Your task to perform on an android device: Is it going to rain today? Image 0: 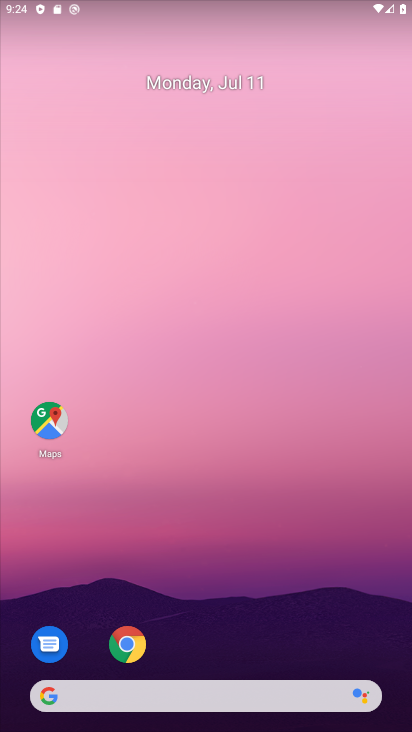
Step 0: press home button
Your task to perform on an android device: Is it going to rain today? Image 1: 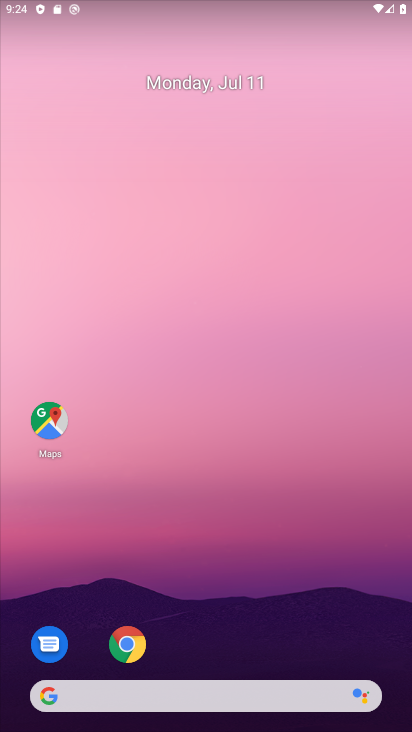
Step 1: click (197, 690)
Your task to perform on an android device: Is it going to rain today? Image 2: 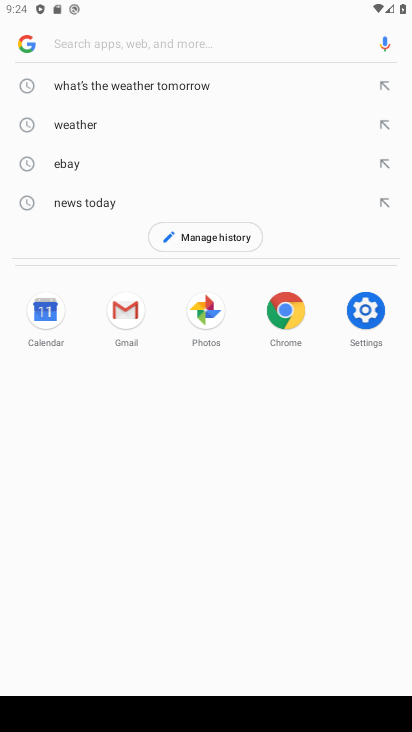
Step 2: click (97, 122)
Your task to perform on an android device: Is it going to rain today? Image 3: 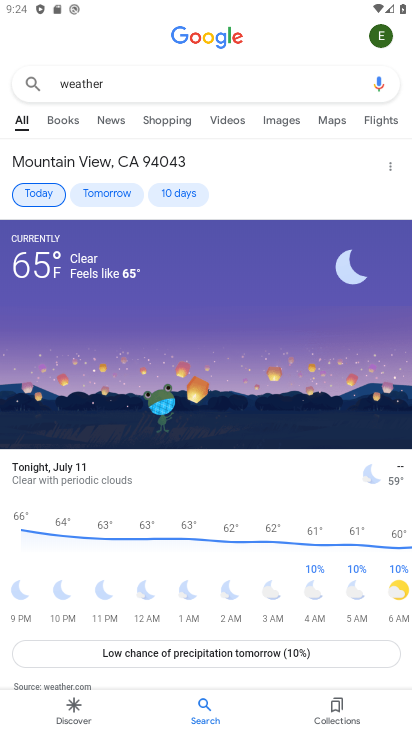
Step 3: task complete